Your task to perform on an android device: Find coffee shops on Maps Image 0: 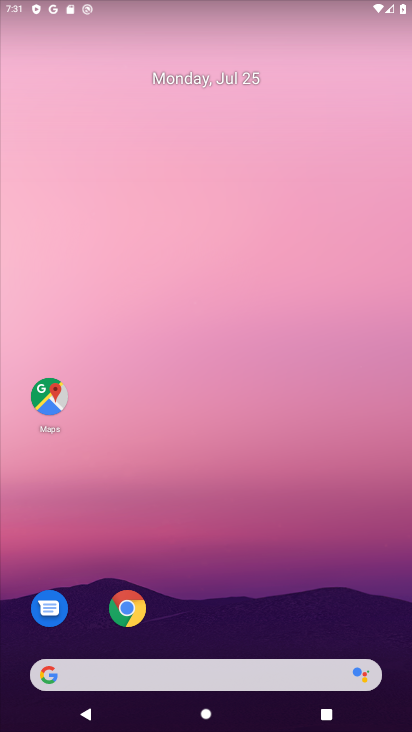
Step 0: click (403, 665)
Your task to perform on an android device: Find coffee shops on Maps Image 1: 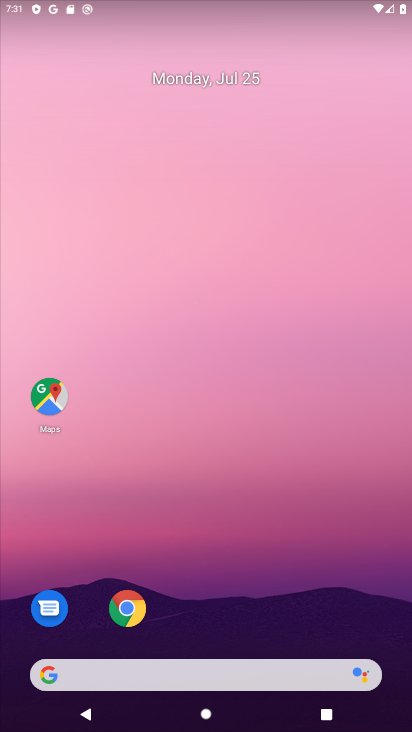
Step 1: drag from (223, 589) to (367, 412)
Your task to perform on an android device: Find coffee shops on Maps Image 2: 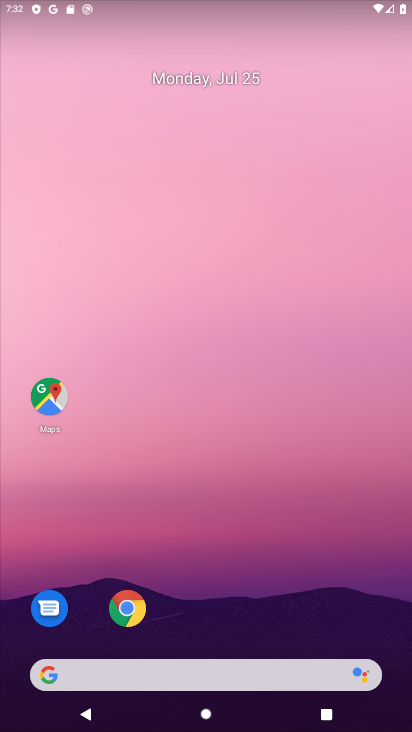
Step 2: drag from (211, 497) to (284, 169)
Your task to perform on an android device: Find coffee shops on Maps Image 3: 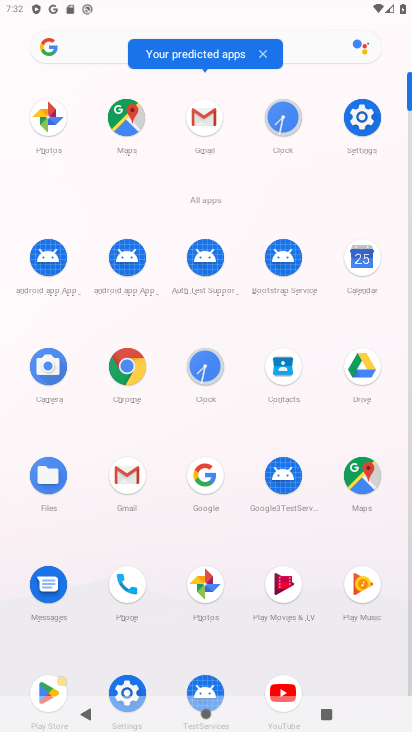
Step 3: click (360, 483)
Your task to perform on an android device: Find coffee shops on Maps Image 4: 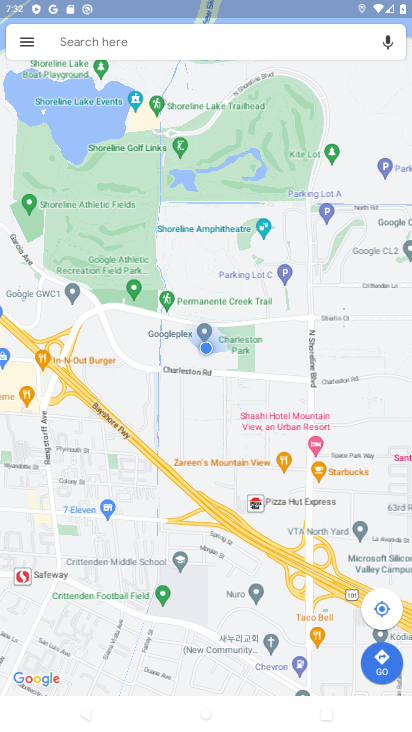
Step 4: click (152, 38)
Your task to perform on an android device: Find coffee shops on Maps Image 5: 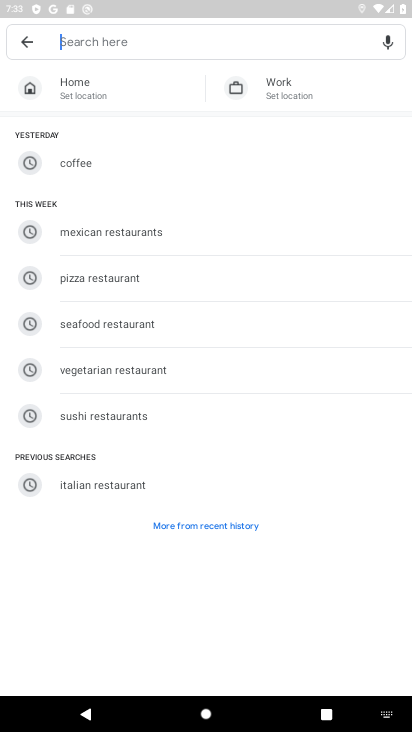
Step 5: type "coffee shops"
Your task to perform on an android device: Find coffee shops on Maps Image 6: 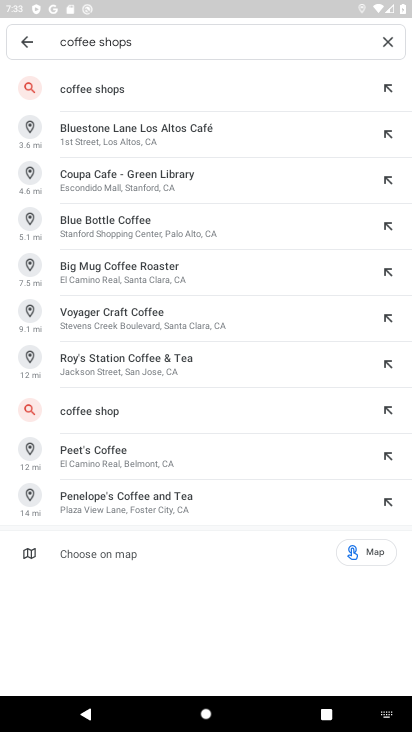
Step 6: click (80, 87)
Your task to perform on an android device: Find coffee shops on Maps Image 7: 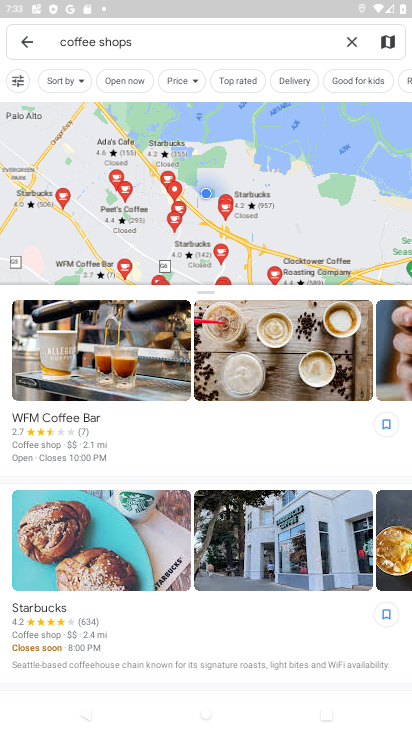
Step 7: task complete